Your task to perform on an android device: turn on showing notifications on the lock screen Image 0: 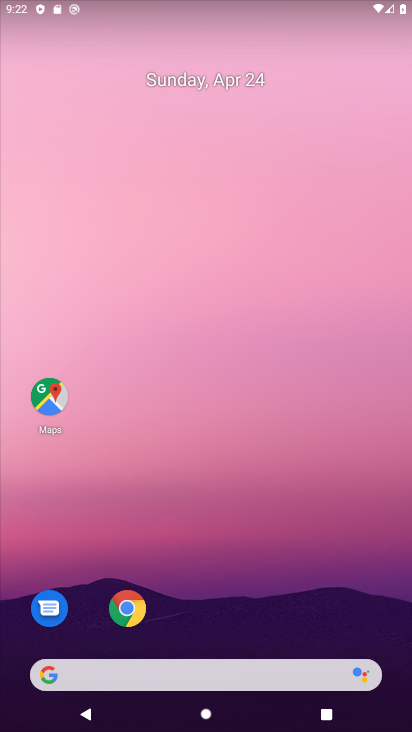
Step 0: drag from (255, 693) to (279, 198)
Your task to perform on an android device: turn on showing notifications on the lock screen Image 1: 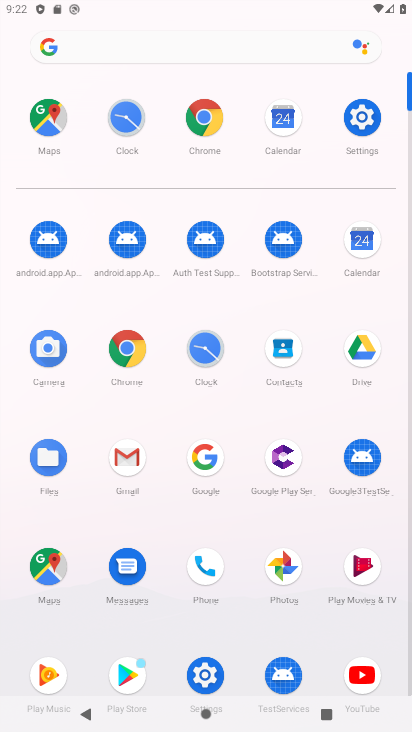
Step 1: click (365, 125)
Your task to perform on an android device: turn on showing notifications on the lock screen Image 2: 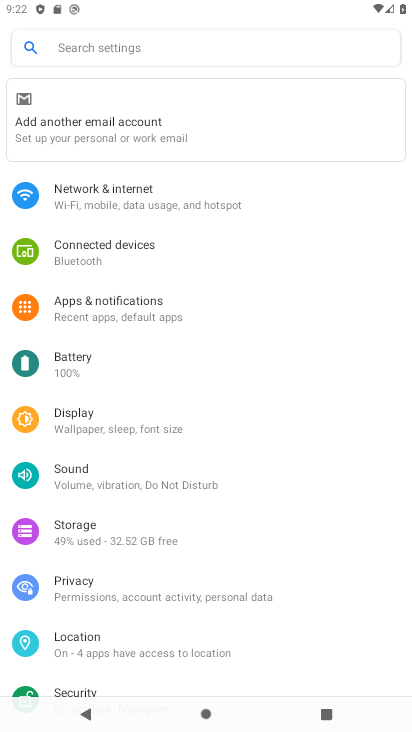
Step 2: click (214, 51)
Your task to perform on an android device: turn on showing notifications on the lock screen Image 3: 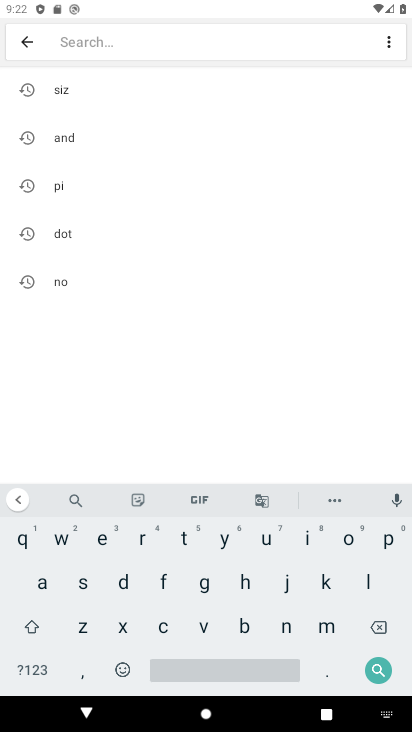
Step 3: click (80, 273)
Your task to perform on an android device: turn on showing notifications on the lock screen Image 4: 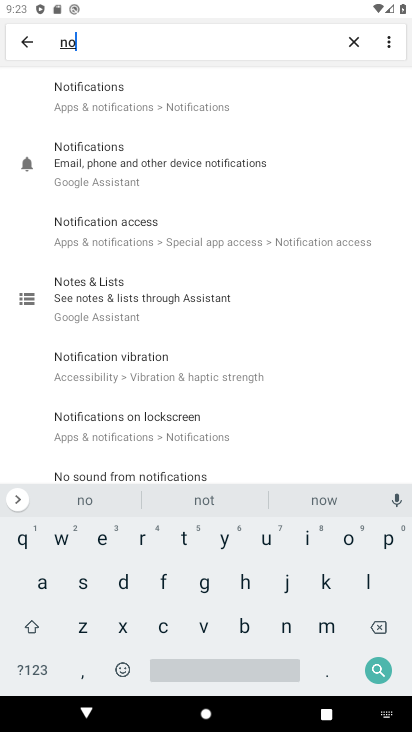
Step 4: click (144, 90)
Your task to perform on an android device: turn on showing notifications on the lock screen Image 5: 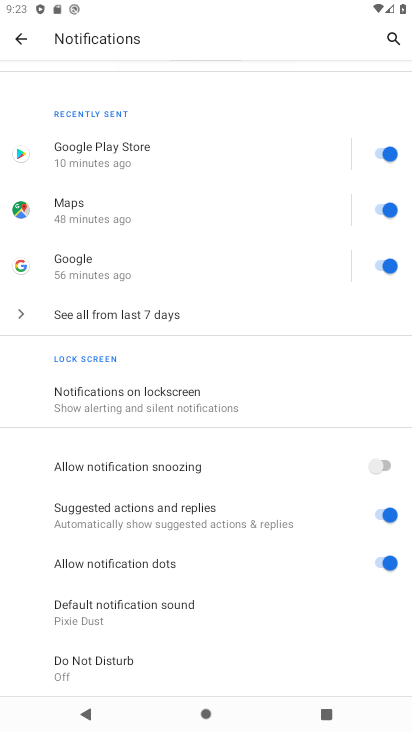
Step 5: drag from (149, 282) to (135, 559)
Your task to perform on an android device: turn on showing notifications on the lock screen Image 6: 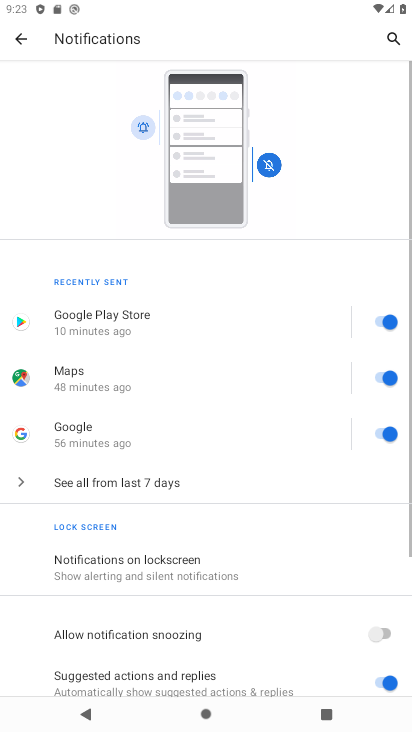
Step 6: click (154, 550)
Your task to perform on an android device: turn on showing notifications on the lock screen Image 7: 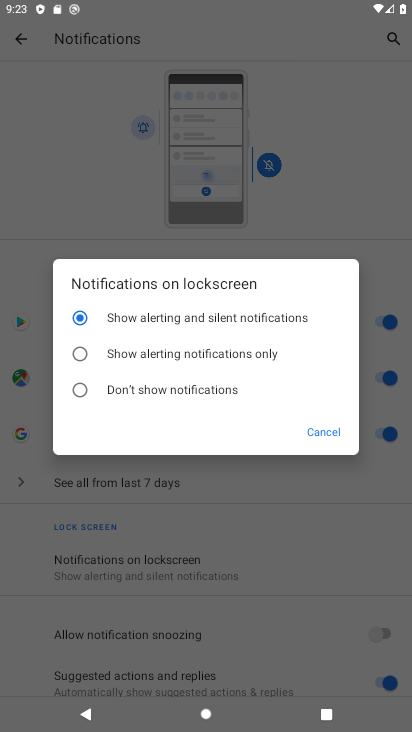
Step 7: task complete